Your task to perform on an android device: Open maps Image 0: 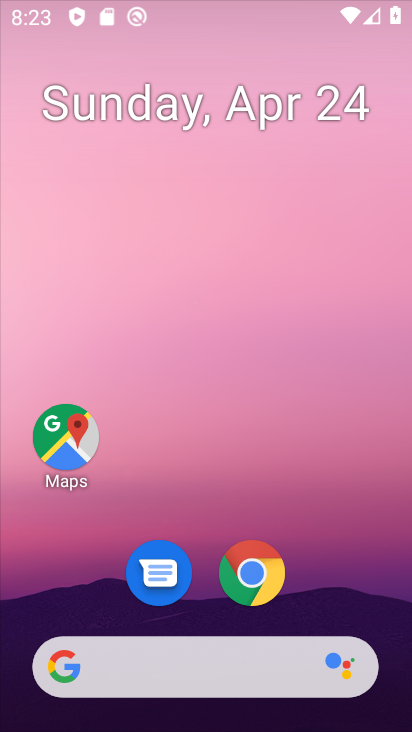
Step 0: drag from (339, 597) to (235, 74)
Your task to perform on an android device: Open maps Image 1: 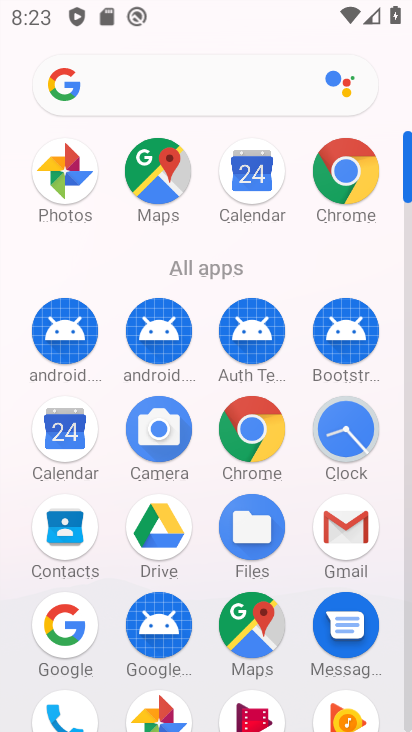
Step 1: click (155, 184)
Your task to perform on an android device: Open maps Image 2: 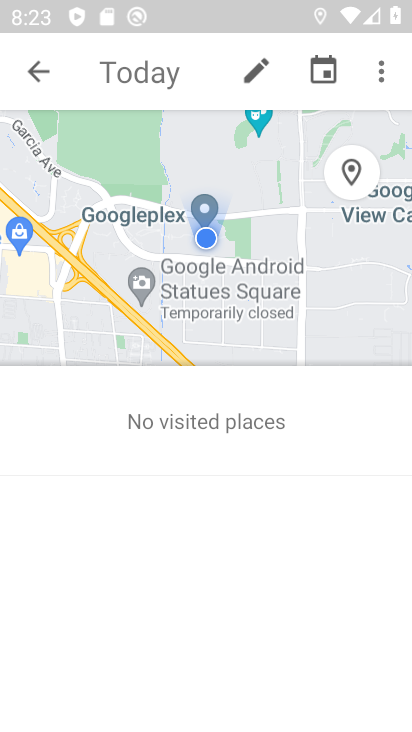
Step 2: click (37, 73)
Your task to perform on an android device: Open maps Image 3: 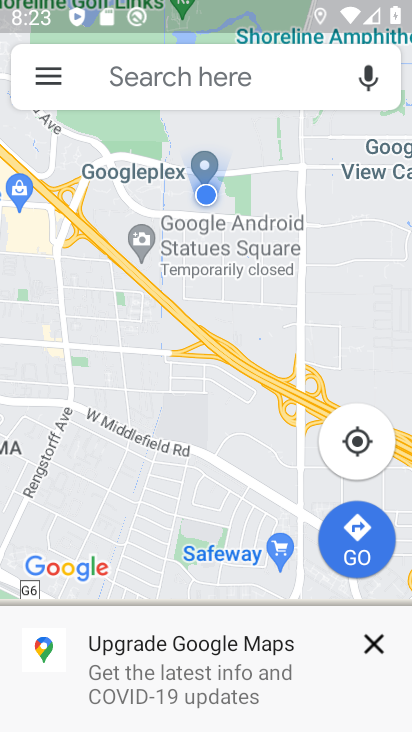
Step 3: task complete